Your task to perform on an android device: install app "Skype" Image 0: 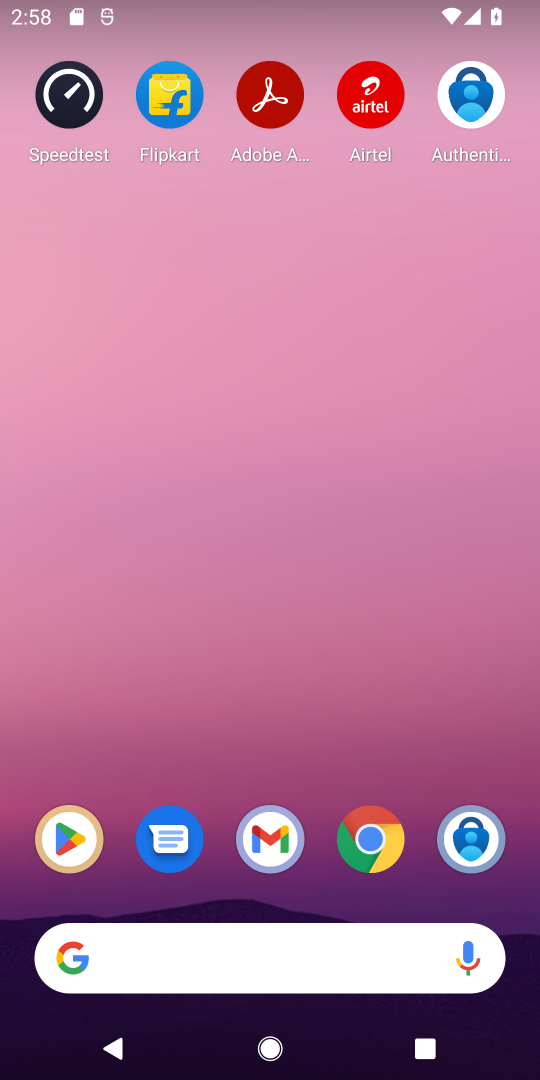
Step 0: click (57, 840)
Your task to perform on an android device: install app "Skype" Image 1: 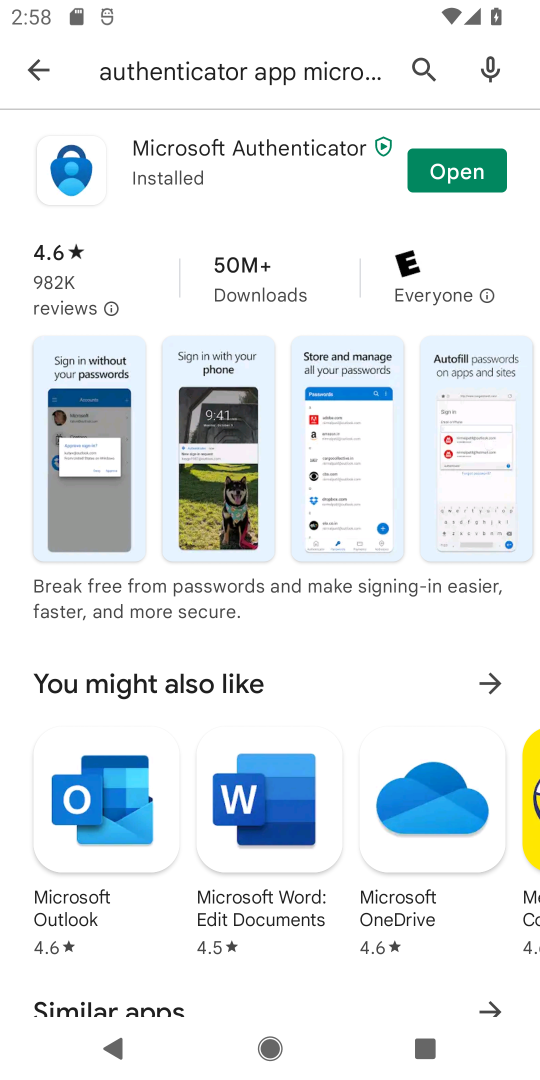
Step 1: click (417, 88)
Your task to perform on an android device: install app "Skype" Image 2: 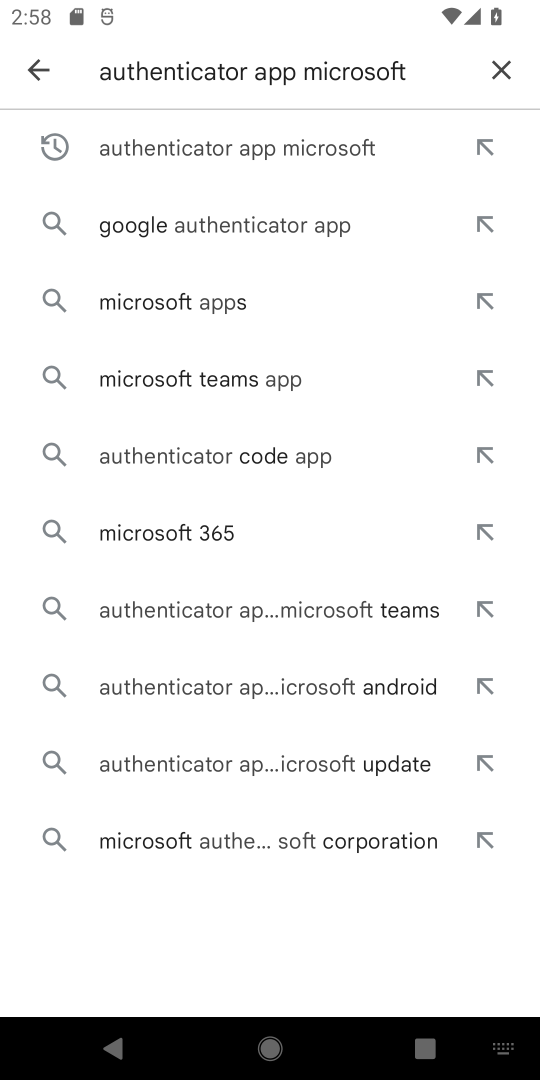
Step 2: click (499, 75)
Your task to perform on an android device: install app "Skype" Image 3: 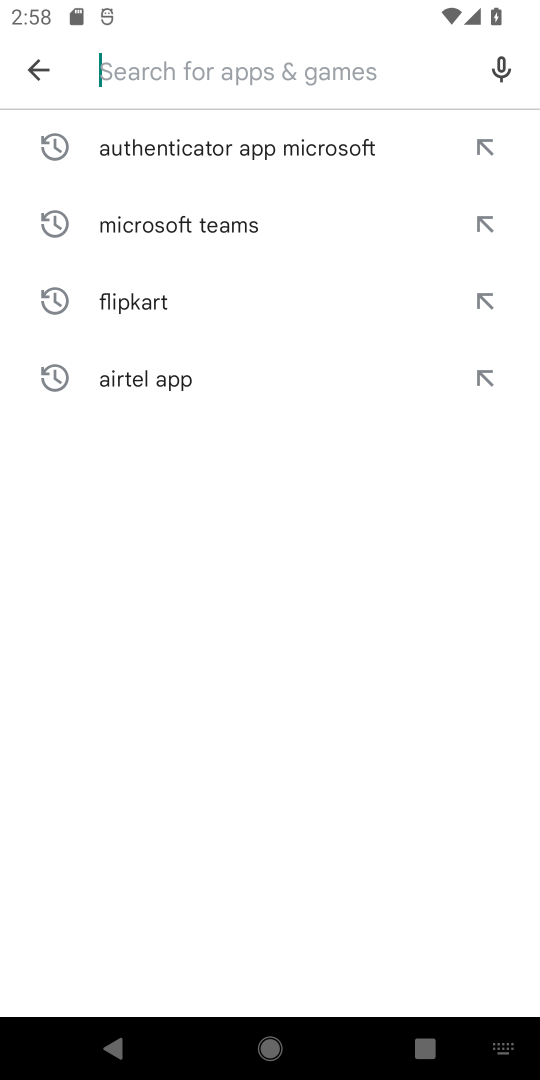
Step 3: type "skype"
Your task to perform on an android device: install app "Skype" Image 4: 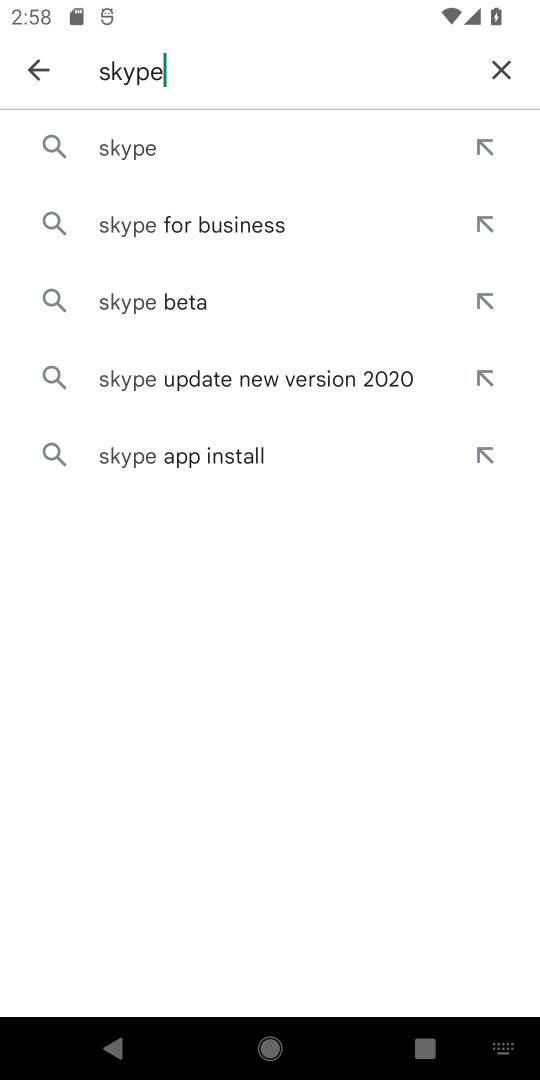
Step 4: click (164, 154)
Your task to perform on an android device: install app "Skype" Image 5: 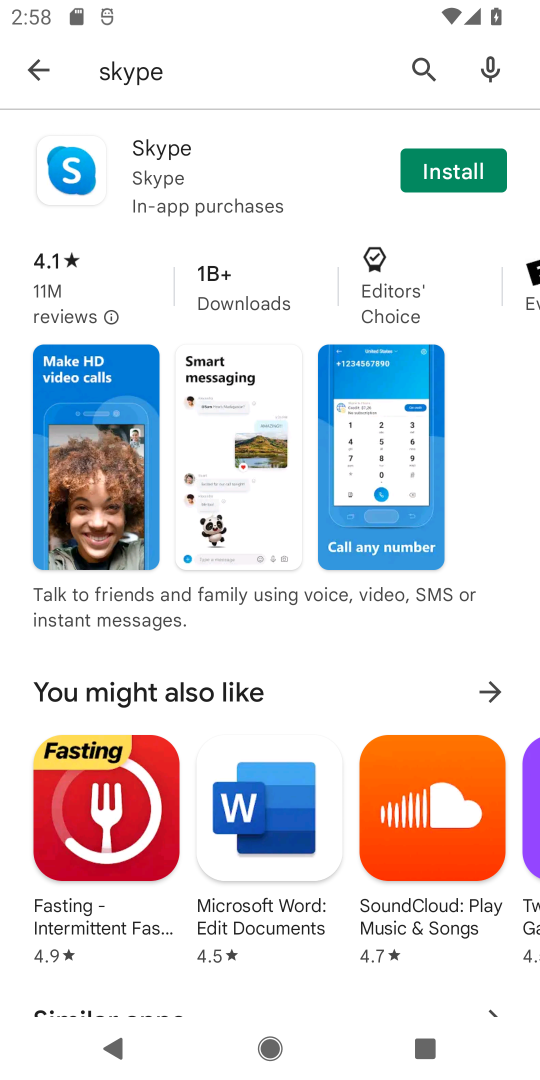
Step 5: click (420, 162)
Your task to perform on an android device: install app "Skype" Image 6: 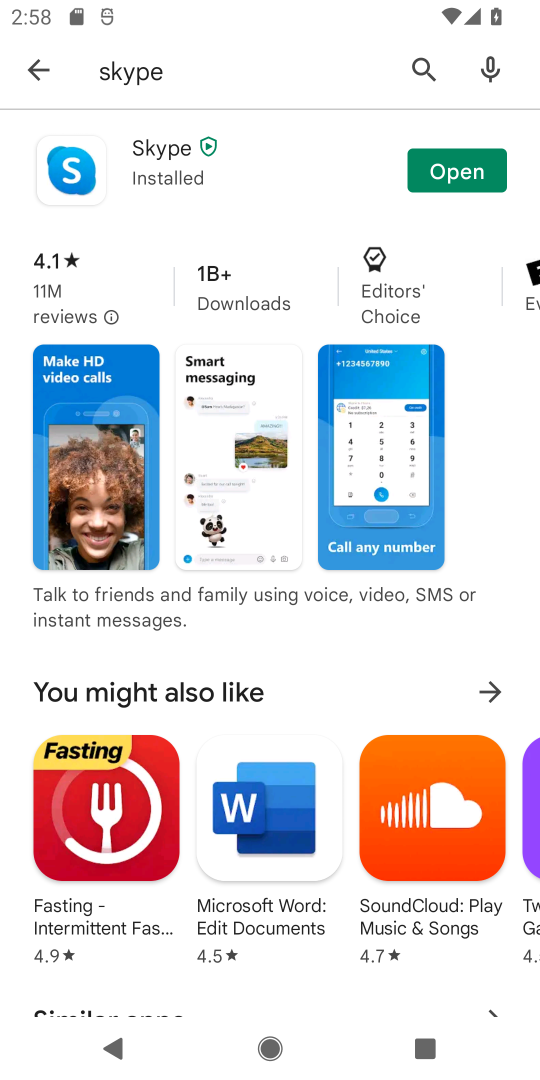
Step 6: task complete